Your task to perform on an android device: turn off airplane mode Image 0: 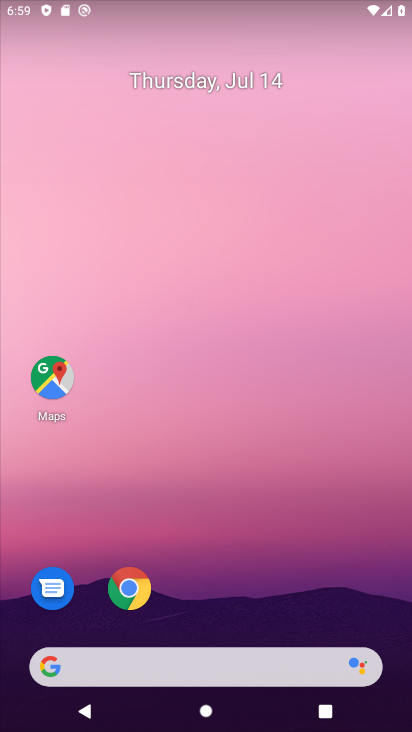
Step 0: drag from (392, 663) to (312, 170)
Your task to perform on an android device: turn off airplane mode Image 1: 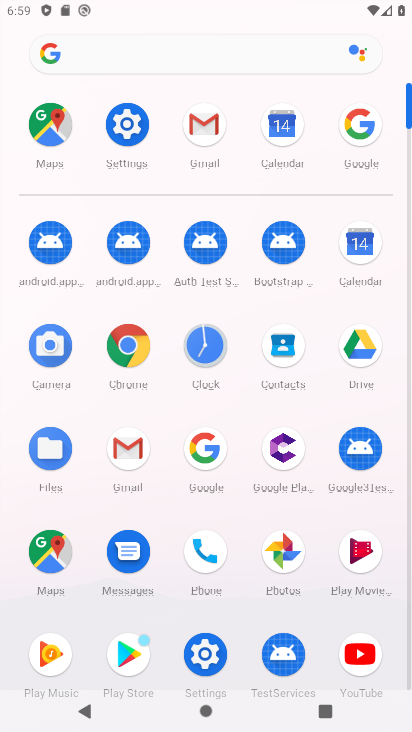
Step 1: task complete